Your task to perform on an android device: open sync settings in chrome Image 0: 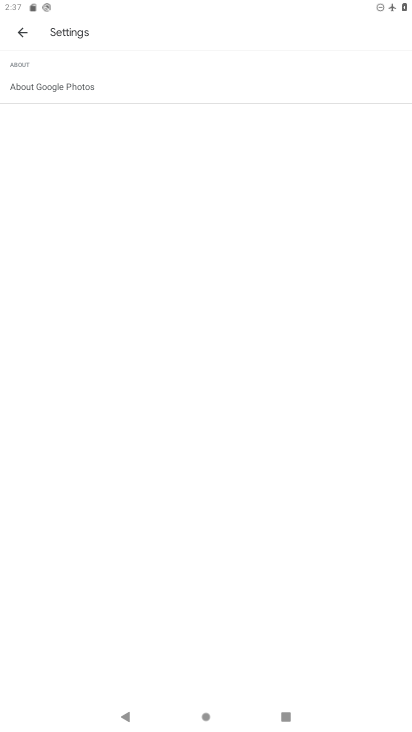
Step 0: press home button
Your task to perform on an android device: open sync settings in chrome Image 1: 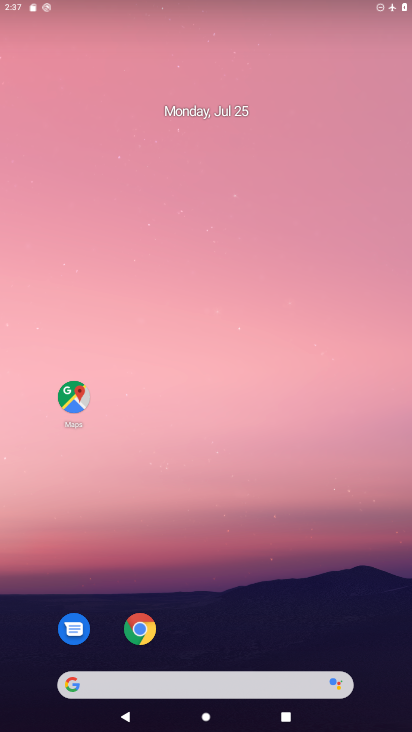
Step 1: drag from (283, 485) to (249, 14)
Your task to perform on an android device: open sync settings in chrome Image 2: 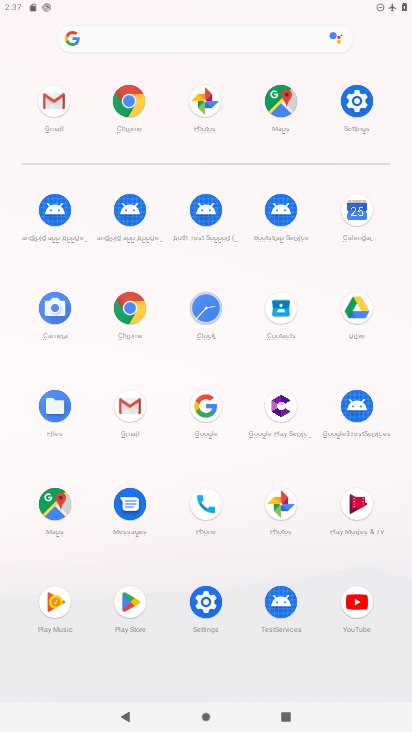
Step 2: click (118, 97)
Your task to perform on an android device: open sync settings in chrome Image 3: 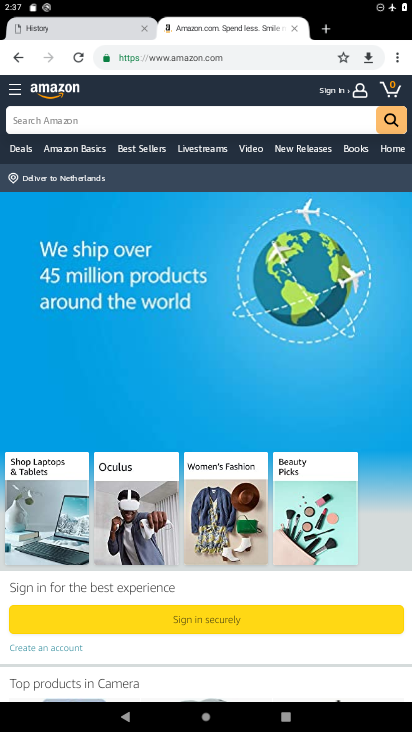
Step 3: drag from (399, 61) to (262, 359)
Your task to perform on an android device: open sync settings in chrome Image 4: 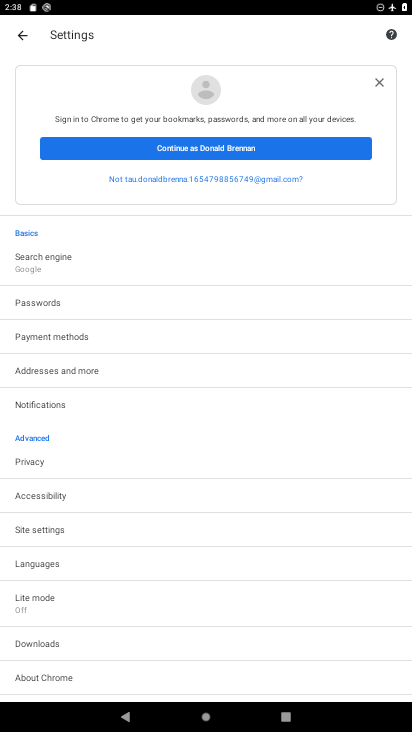
Step 4: drag from (223, 634) to (212, 322)
Your task to perform on an android device: open sync settings in chrome Image 5: 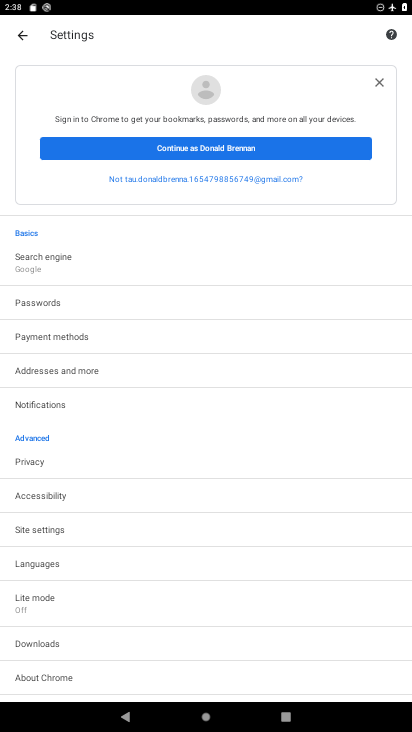
Step 5: click (64, 527)
Your task to perform on an android device: open sync settings in chrome Image 6: 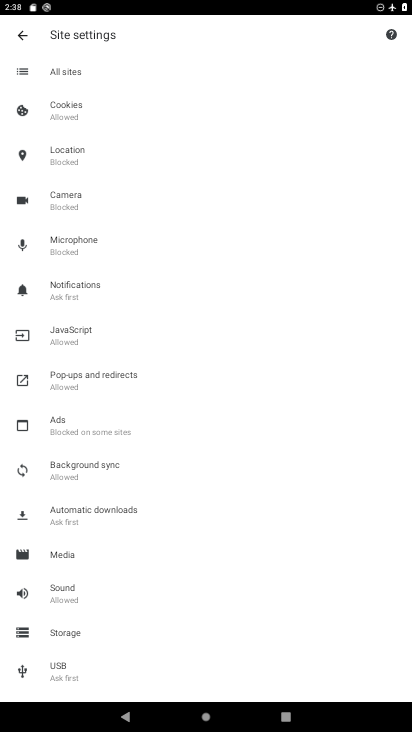
Step 6: click (67, 476)
Your task to perform on an android device: open sync settings in chrome Image 7: 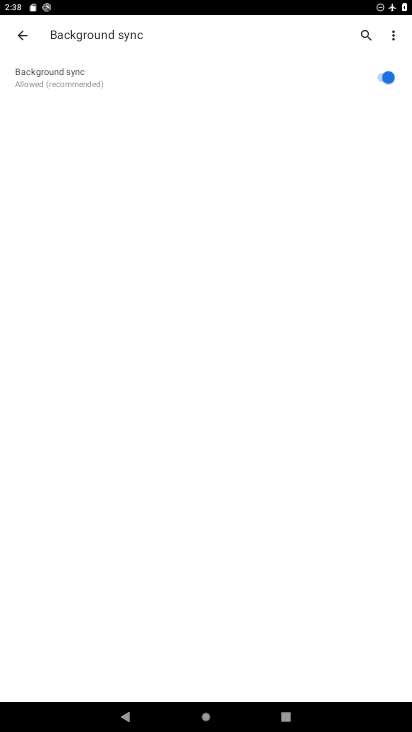
Step 7: task complete